Your task to perform on an android device: delete browsing data in the chrome app Image 0: 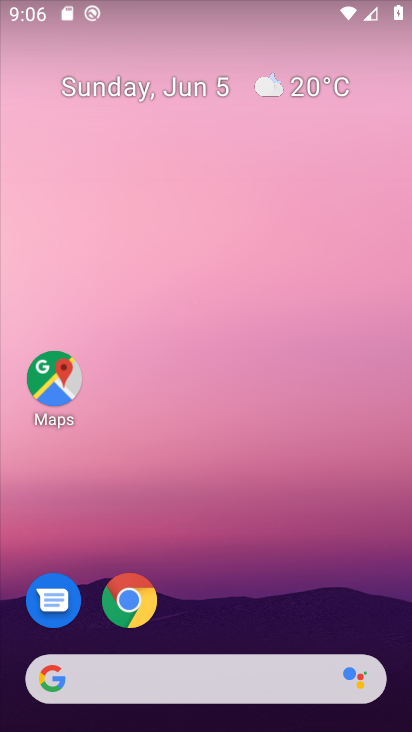
Step 0: drag from (256, 591) to (219, 45)
Your task to perform on an android device: delete browsing data in the chrome app Image 1: 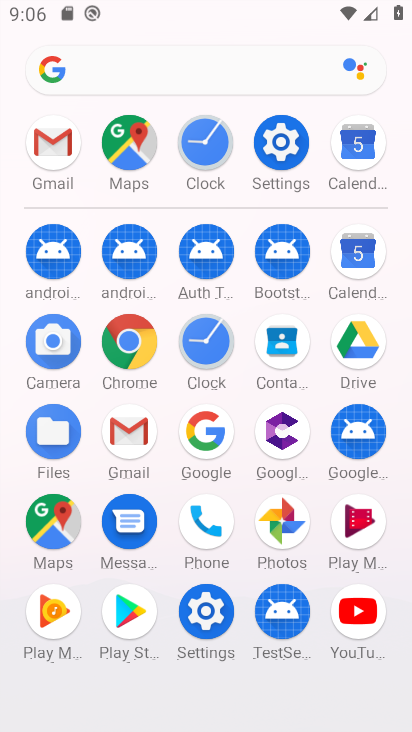
Step 1: click (137, 339)
Your task to perform on an android device: delete browsing data in the chrome app Image 2: 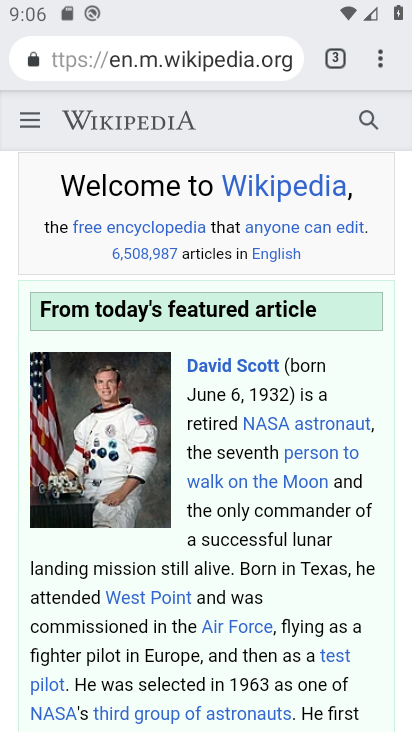
Step 2: click (382, 59)
Your task to perform on an android device: delete browsing data in the chrome app Image 3: 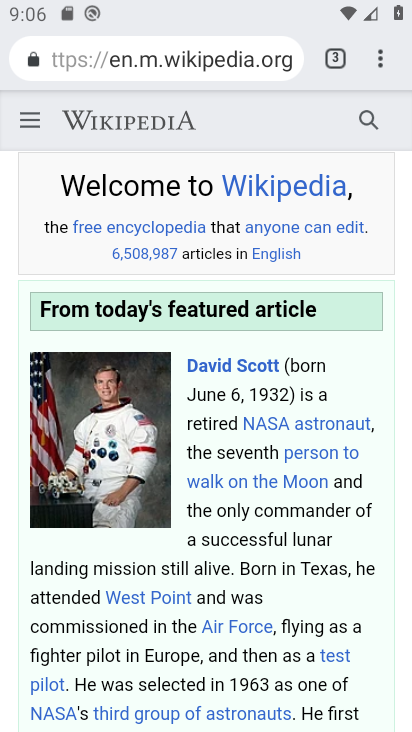
Step 3: click (382, 67)
Your task to perform on an android device: delete browsing data in the chrome app Image 4: 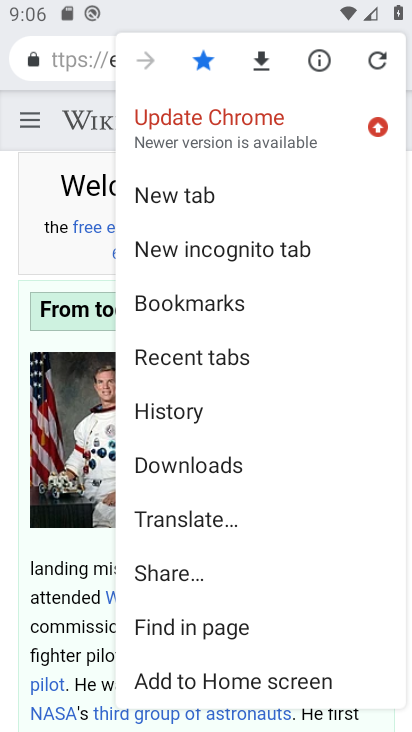
Step 4: drag from (290, 534) to (271, 125)
Your task to perform on an android device: delete browsing data in the chrome app Image 5: 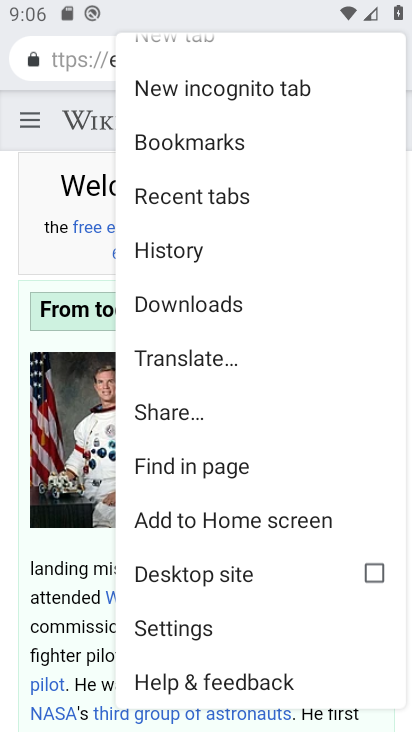
Step 5: click (188, 248)
Your task to perform on an android device: delete browsing data in the chrome app Image 6: 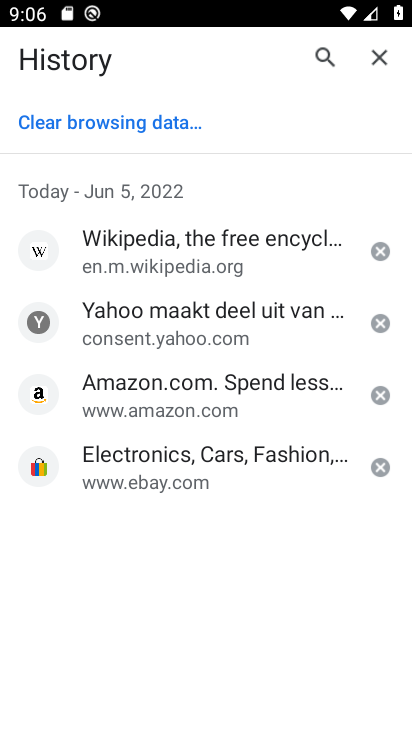
Step 6: click (114, 118)
Your task to perform on an android device: delete browsing data in the chrome app Image 7: 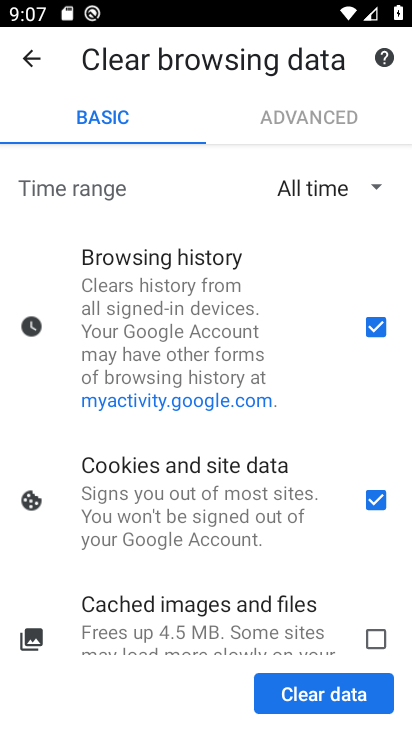
Step 7: click (380, 636)
Your task to perform on an android device: delete browsing data in the chrome app Image 8: 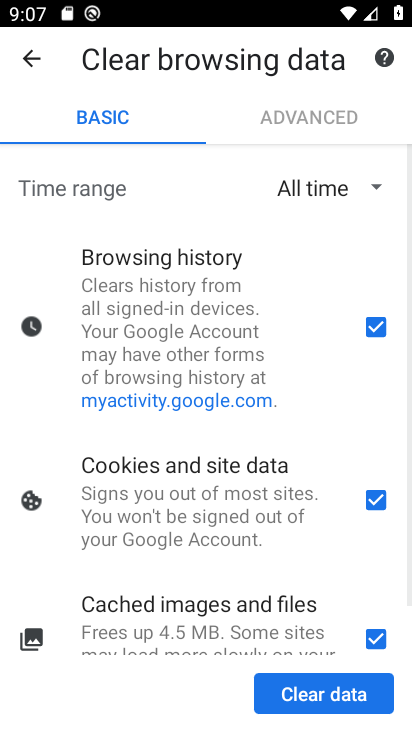
Step 8: click (360, 694)
Your task to perform on an android device: delete browsing data in the chrome app Image 9: 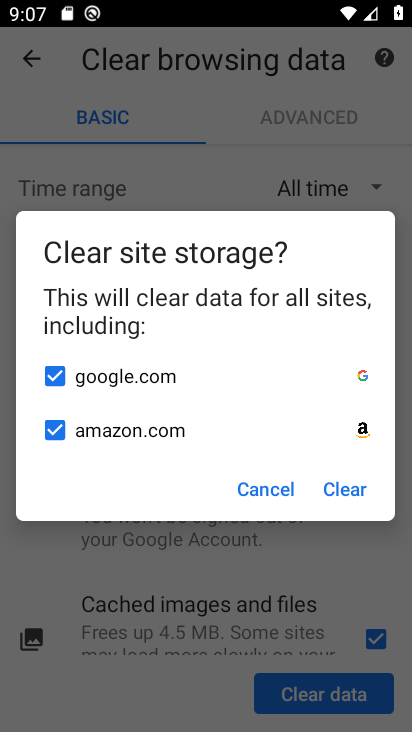
Step 9: click (356, 484)
Your task to perform on an android device: delete browsing data in the chrome app Image 10: 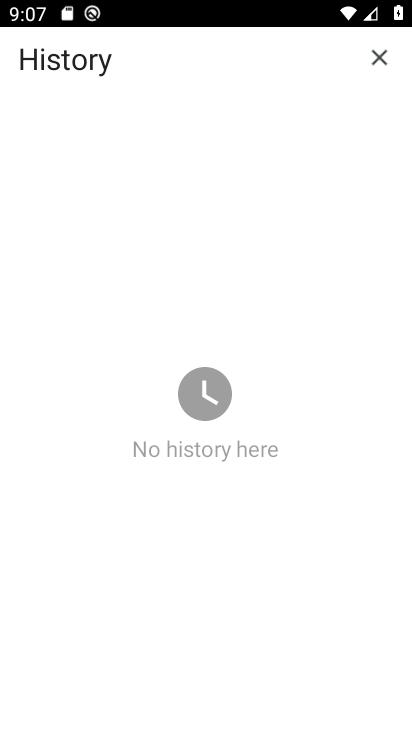
Step 10: task complete